Your task to perform on an android device: toggle data saver in the chrome app Image 0: 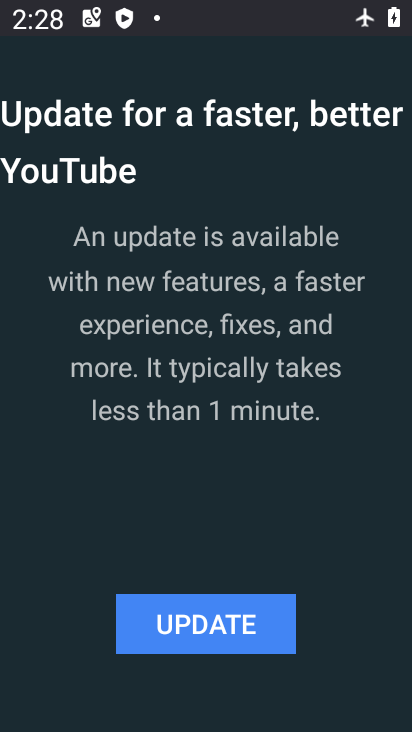
Step 0: drag from (346, 564) to (352, 475)
Your task to perform on an android device: toggle data saver in the chrome app Image 1: 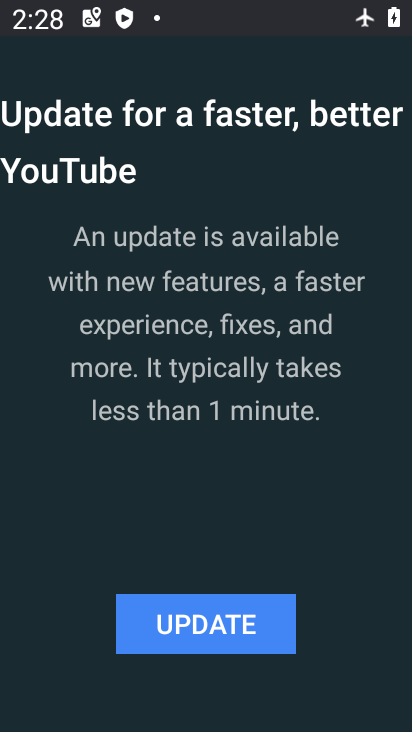
Step 1: press home button
Your task to perform on an android device: toggle data saver in the chrome app Image 2: 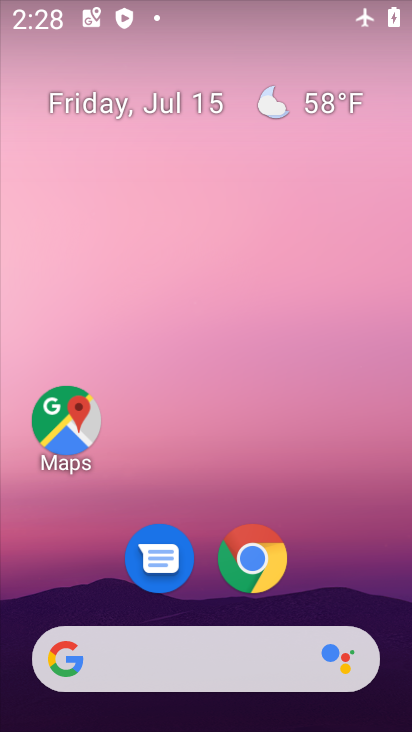
Step 2: drag from (341, 579) to (386, 52)
Your task to perform on an android device: toggle data saver in the chrome app Image 3: 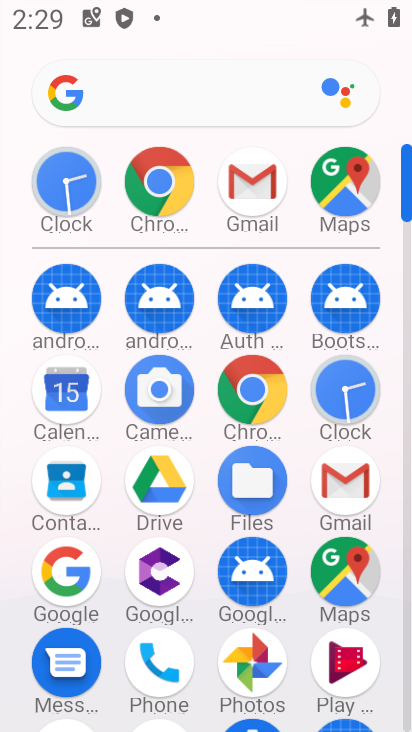
Step 3: click (263, 388)
Your task to perform on an android device: toggle data saver in the chrome app Image 4: 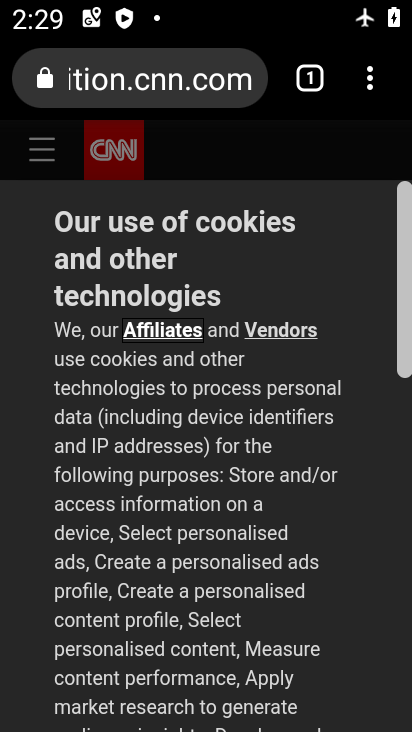
Step 4: click (370, 90)
Your task to perform on an android device: toggle data saver in the chrome app Image 5: 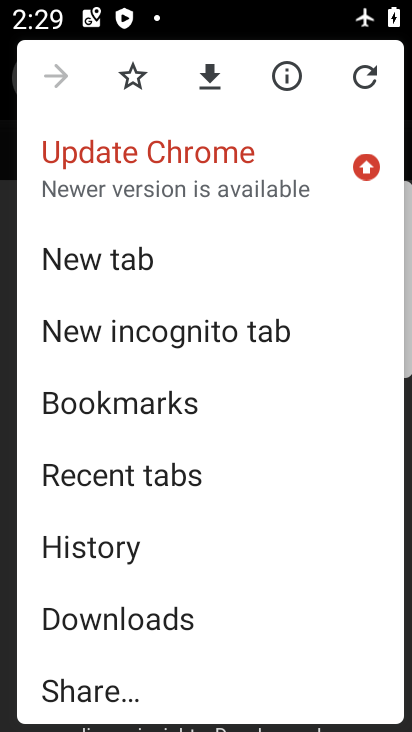
Step 5: drag from (317, 433) to (324, 381)
Your task to perform on an android device: toggle data saver in the chrome app Image 6: 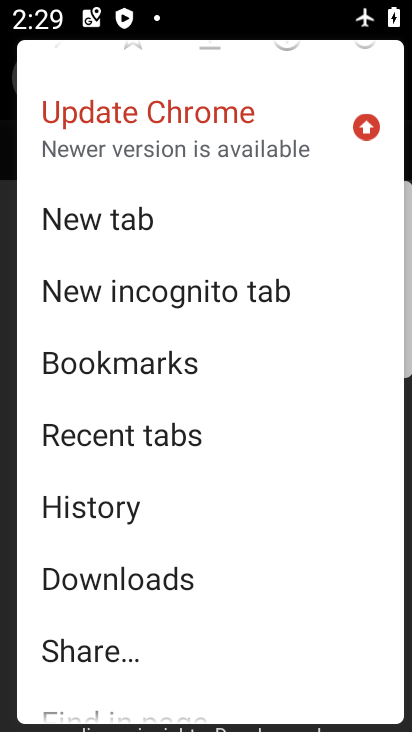
Step 6: drag from (318, 501) to (317, 385)
Your task to perform on an android device: toggle data saver in the chrome app Image 7: 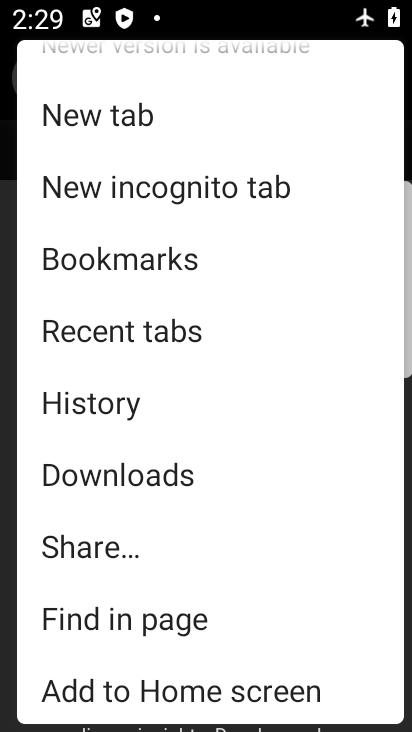
Step 7: drag from (323, 573) to (315, 468)
Your task to perform on an android device: toggle data saver in the chrome app Image 8: 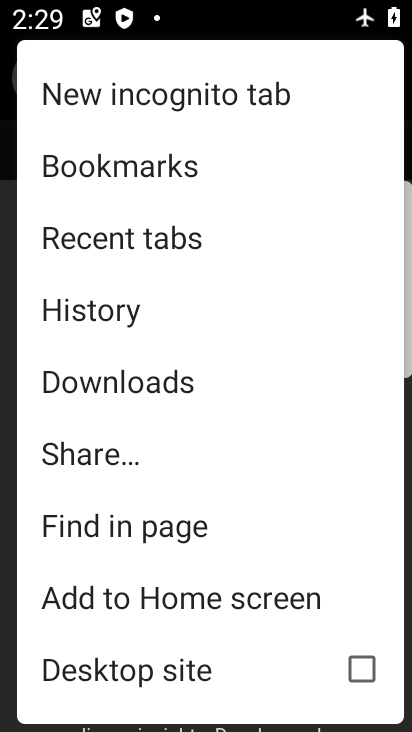
Step 8: drag from (310, 543) to (299, 407)
Your task to perform on an android device: toggle data saver in the chrome app Image 9: 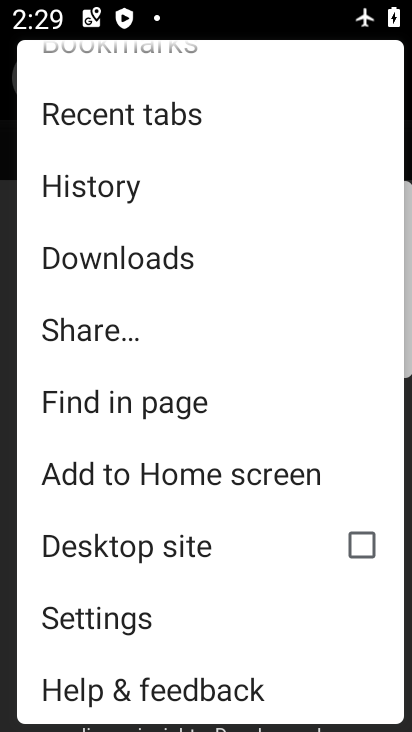
Step 9: drag from (276, 576) to (277, 467)
Your task to perform on an android device: toggle data saver in the chrome app Image 10: 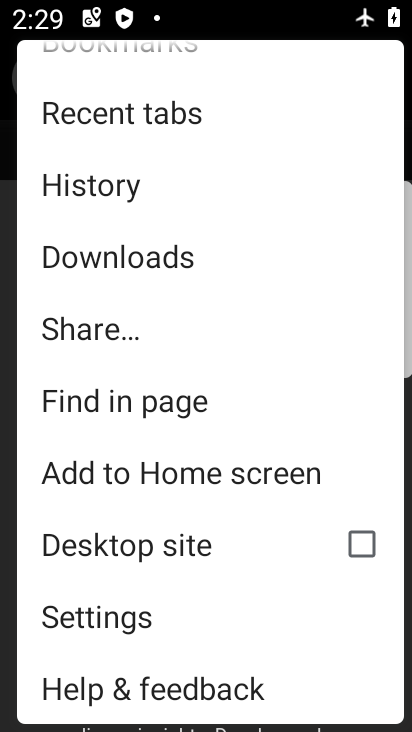
Step 10: click (169, 601)
Your task to perform on an android device: toggle data saver in the chrome app Image 11: 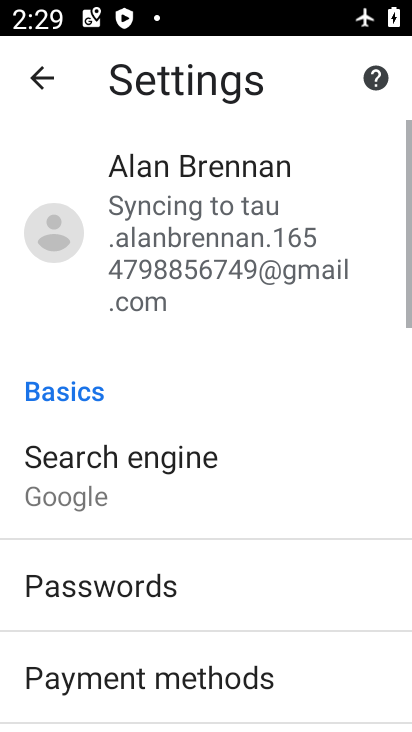
Step 11: drag from (329, 581) to (325, 491)
Your task to perform on an android device: toggle data saver in the chrome app Image 12: 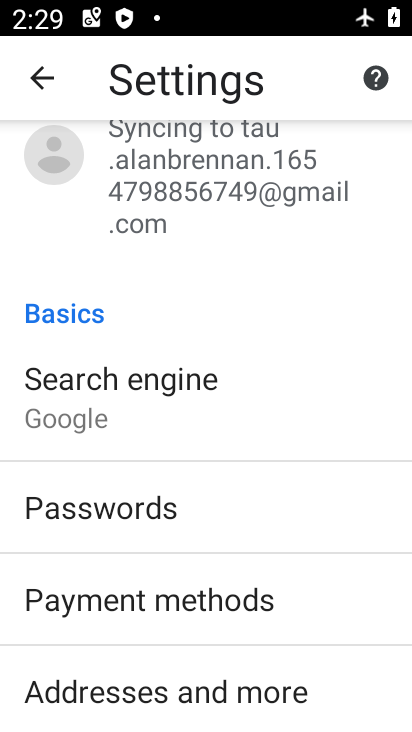
Step 12: drag from (315, 579) to (316, 479)
Your task to perform on an android device: toggle data saver in the chrome app Image 13: 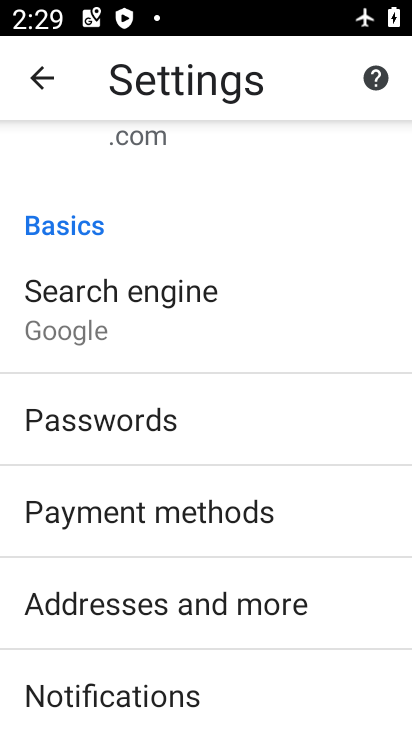
Step 13: drag from (322, 557) to (322, 437)
Your task to perform on an android device: toggle data saver in the chrome app Image 14: 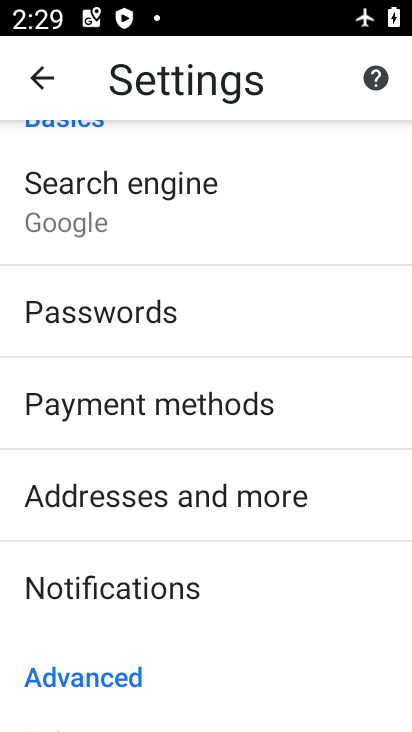
Step 14: drag from (338, 573) to (338, 481)
Your task to perform on an android device: toggle data saver in the chrome app Image 15: 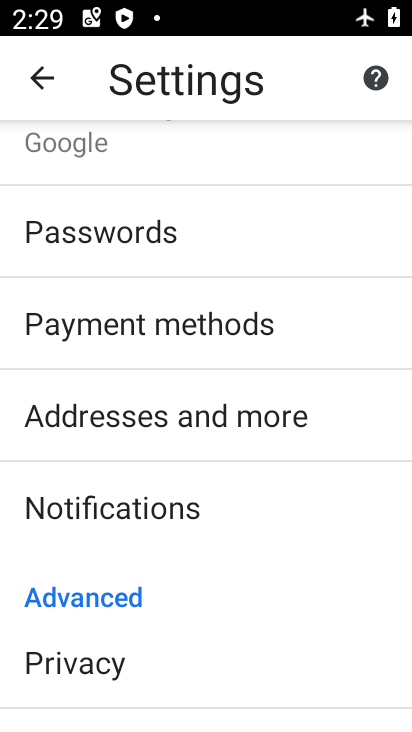
Step 15: drag from (340, 562) to (337, 458)
Your task to perform on an android device: toggle data saver in the chrome app Image 16: 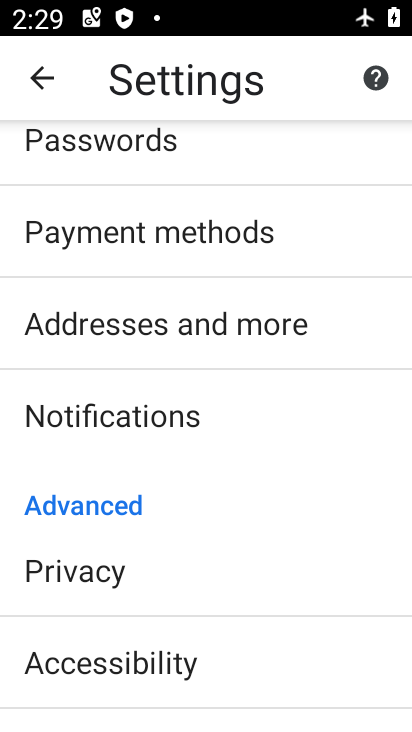
Step 16: drag from (334, 531) to (330, 421)
Your task to perform on an android device: toggle data saver in the chrome app Image 17: 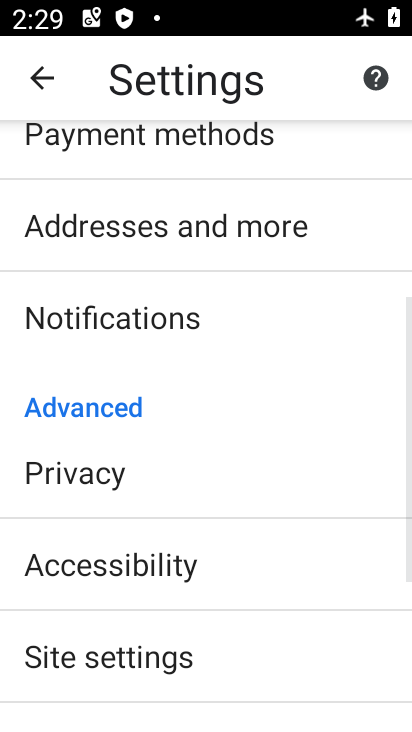
Step 17: drag from (326, 561) to (328, 442)
Your task to perform on an android device: toggle data saver in the chrome app Image 18: 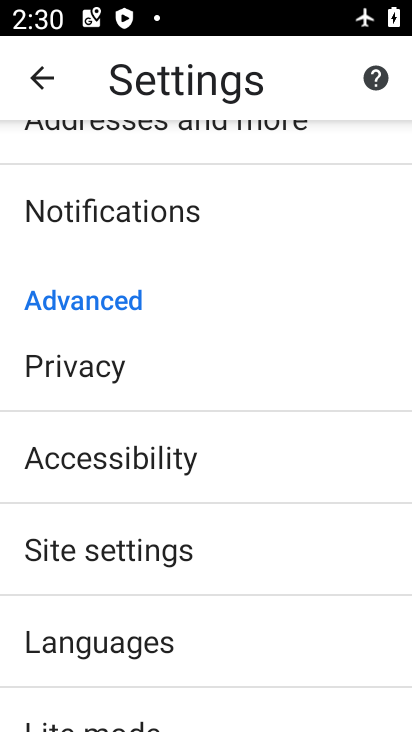
Step 18: drag from (329, 617) to (324, 390)
Your task to perform on an android device: toggle data saver in the chrome app Image 19: 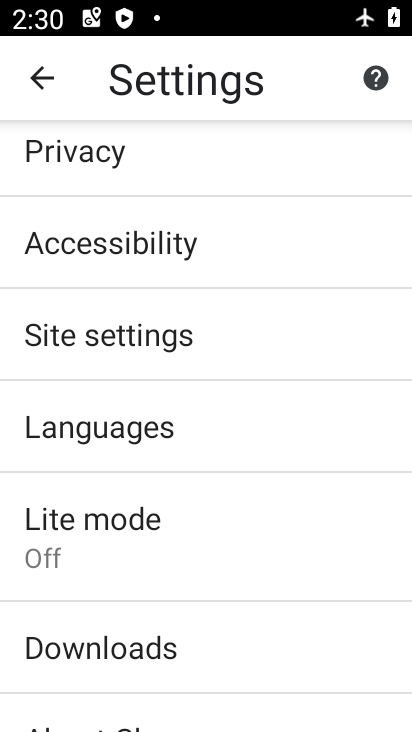
Step 19: click (300, 538)
Your task to perform on an android device: toggle data saver in the chrome app Image 20: 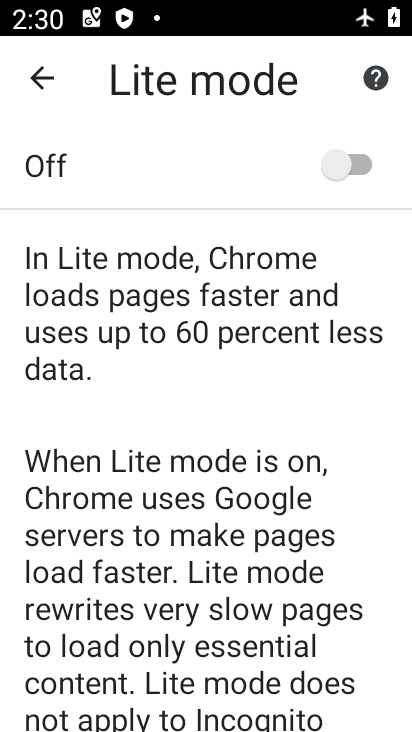
Step 20: drag from (353, 539) to (360, 437)
Your task to perform on an android device: toggle data saver in the chrome app Image 21: 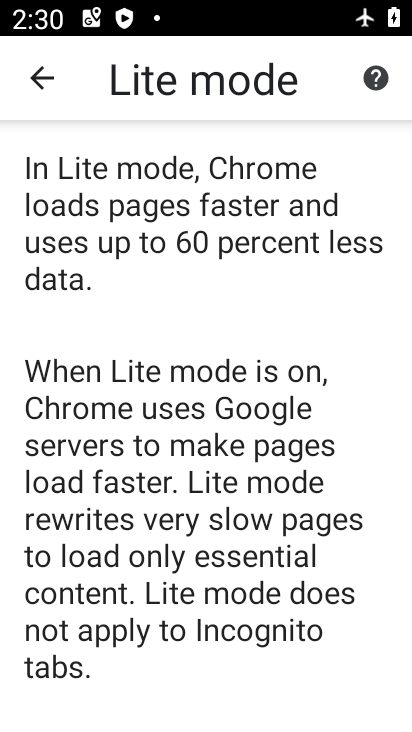
Step 21: drag from (358, 364) to (357, 543)
Your task to perform on an android device: toggle data saver in the chrome app Image 22: 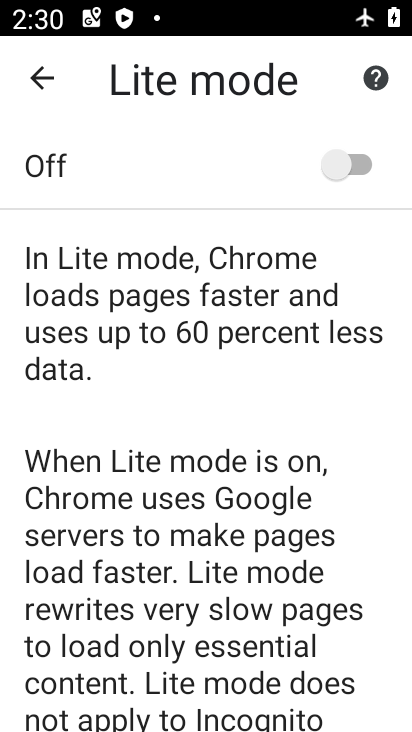
Step 22: click (336, 176)
Your task to perform on an android device: toggle data saver in the chrome app Image 23: 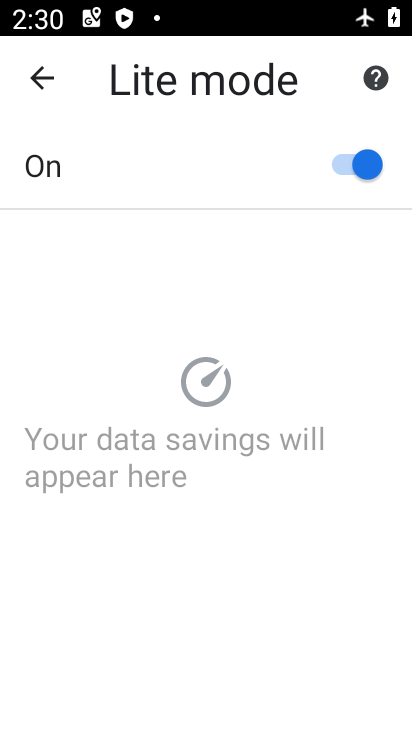
Step 23: task complete